Your task to perform on an android device: Search for sushi restaurants on Maps Image 0: 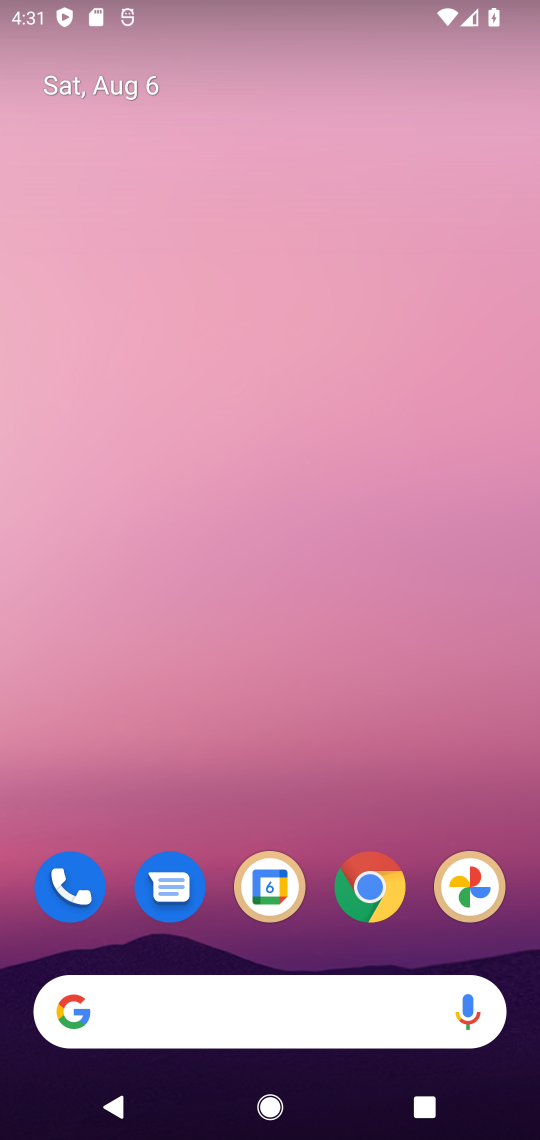
Step 0: drag from (294, 978) to (221, 158)
Your task to perform on an android device: Search for sushi restaurants on Maps Image 1: 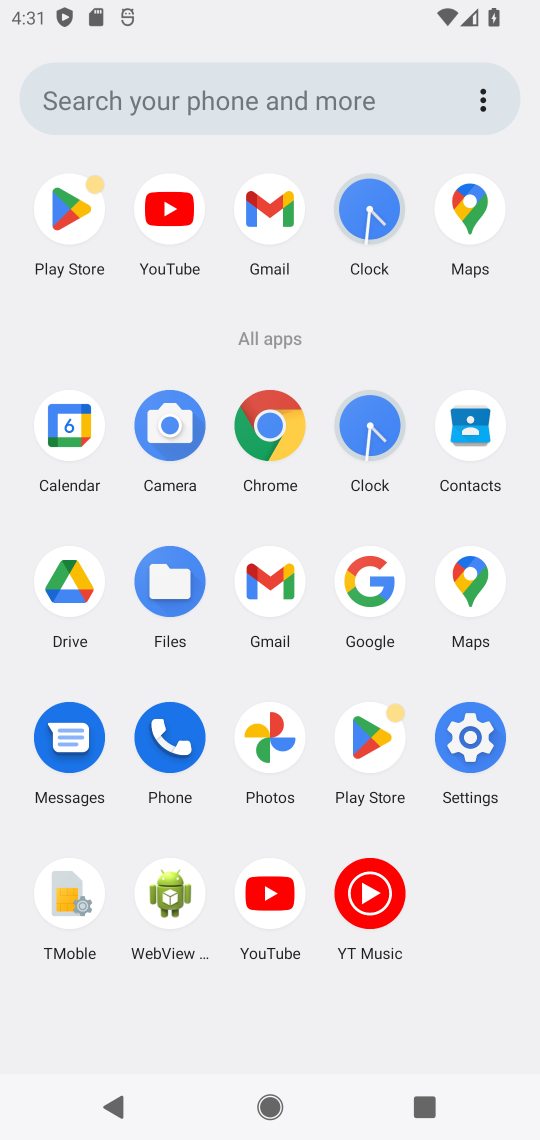
Step 1: click (471, 576)
Your task to perform on an android device: Search for sushi restaurants on Maps Image 2: 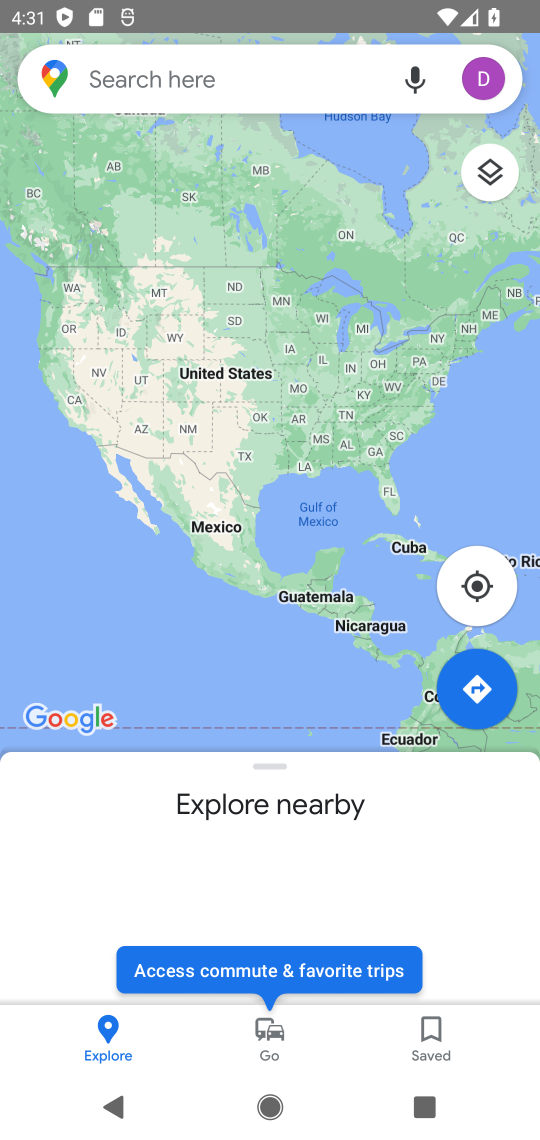
Step 2: click (273, 88)
Your task to perform on an android device: Search for sushi restaurants on Maps Image 3: 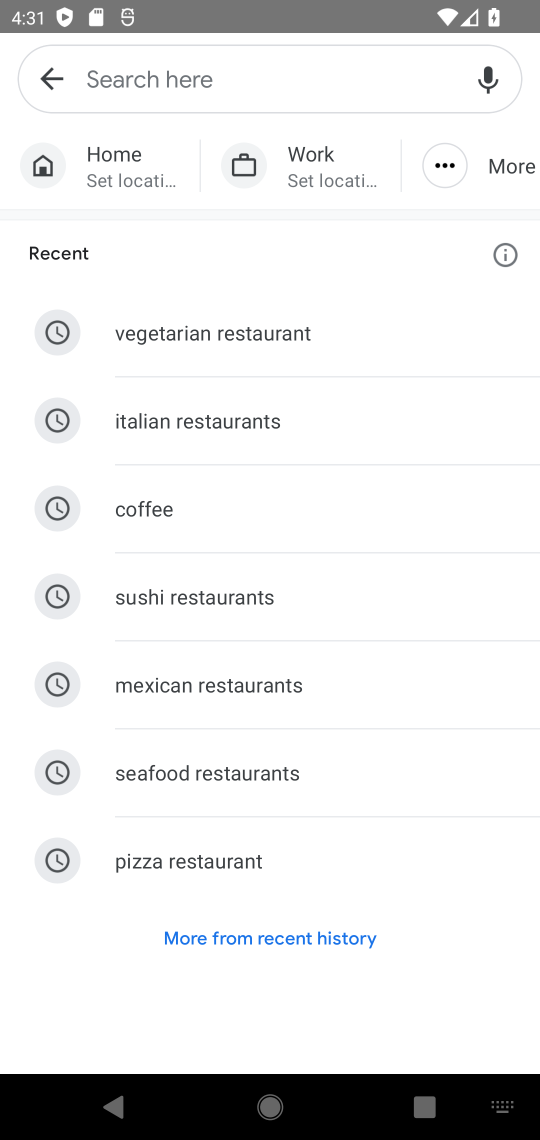
Step 3: type "sushi restaurants"
Your task to perform on an android device: Search for sushi restaurants on Maps Image 4: 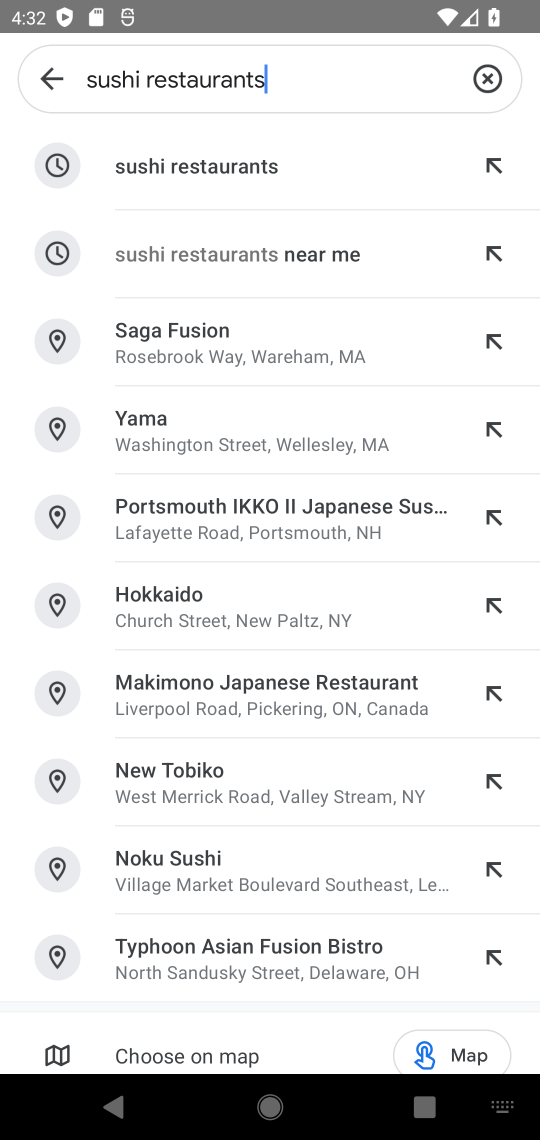
Step 4: click (240, 178)
Your task to perform on an android device: Search for sushi restaurants on Maps Image 5: 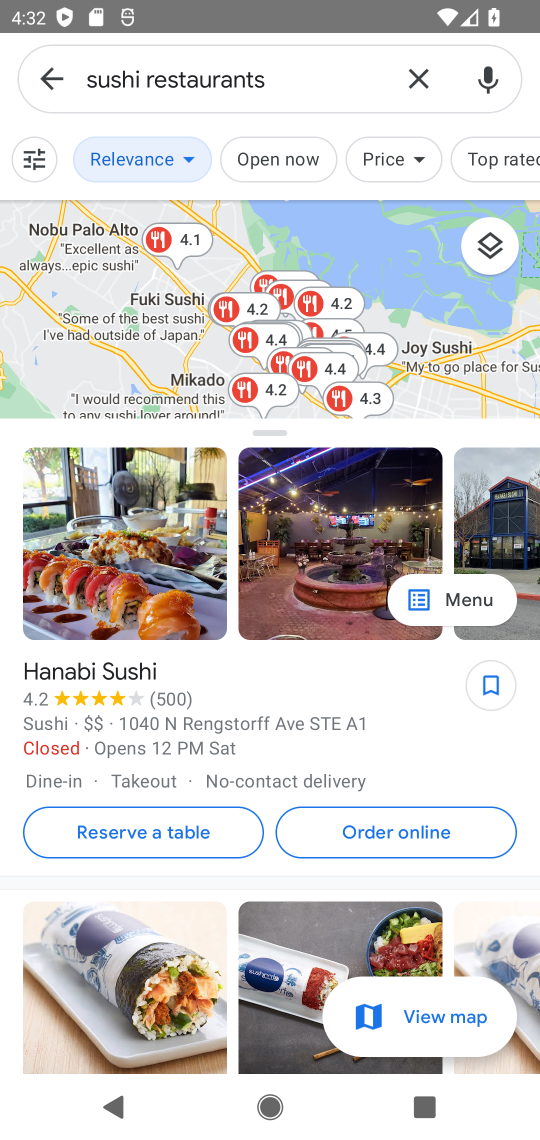
Step 5: task complete